Your task to perform on an android device: open app "McDonald's" Image 0: 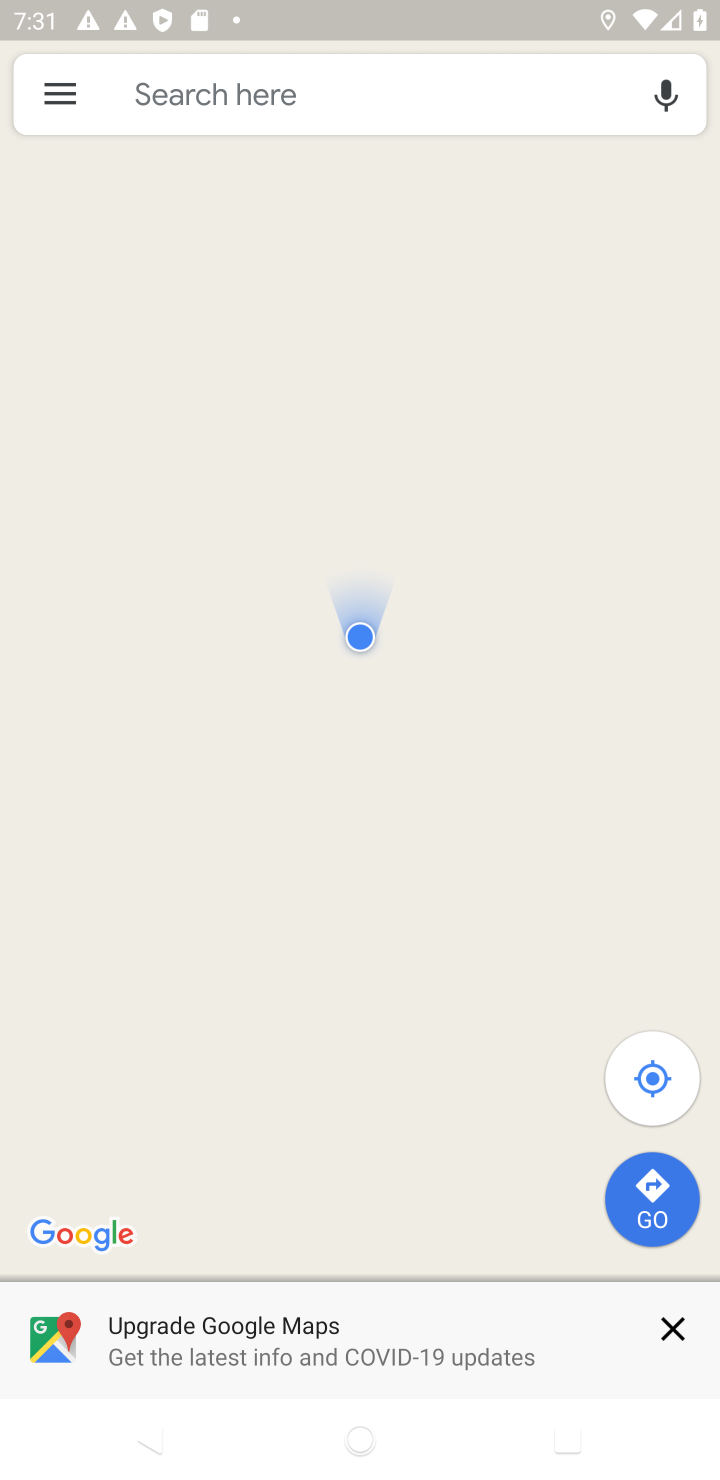
Step 0: press home button
Your task to perform on an android device: open app "McDonald's" Image 1: 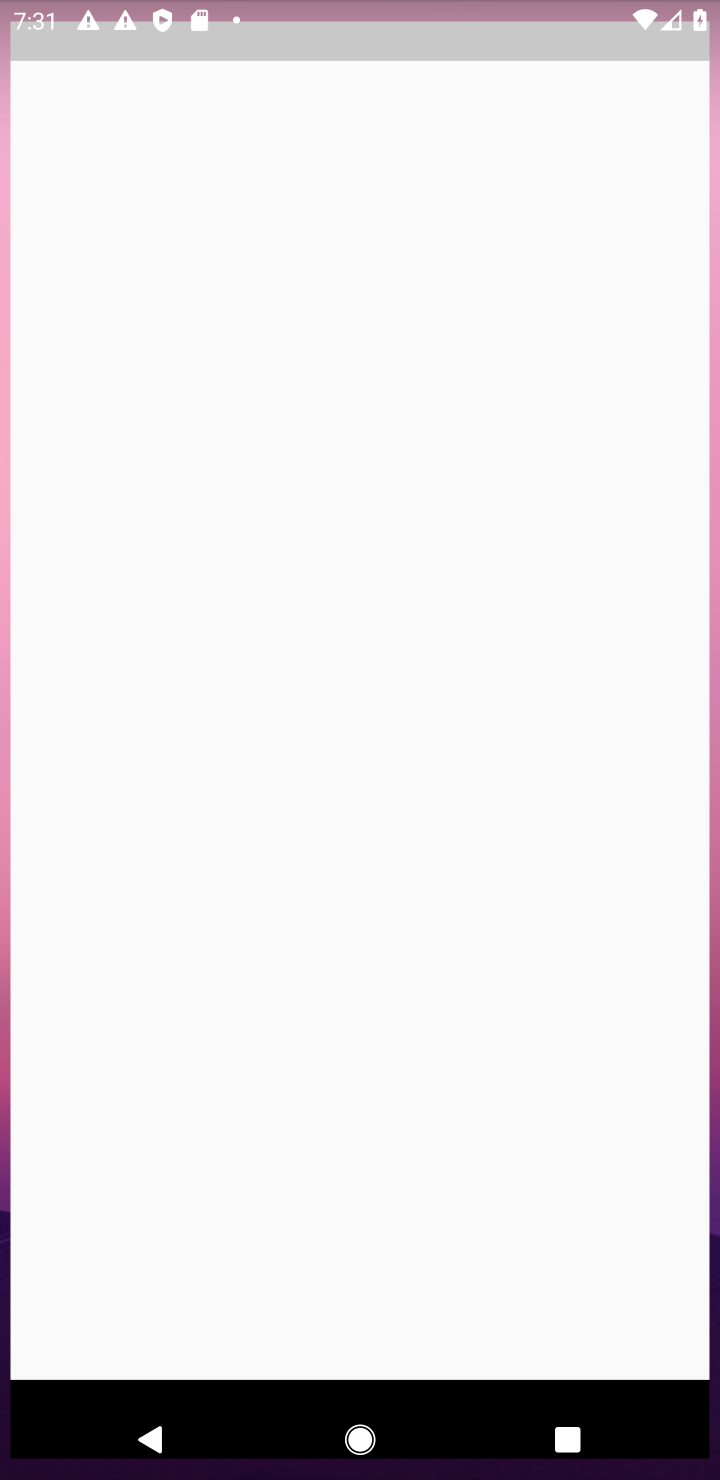
Step 1: press home button
Your task to perform on an android device: open app "McDonald's" Image 2: 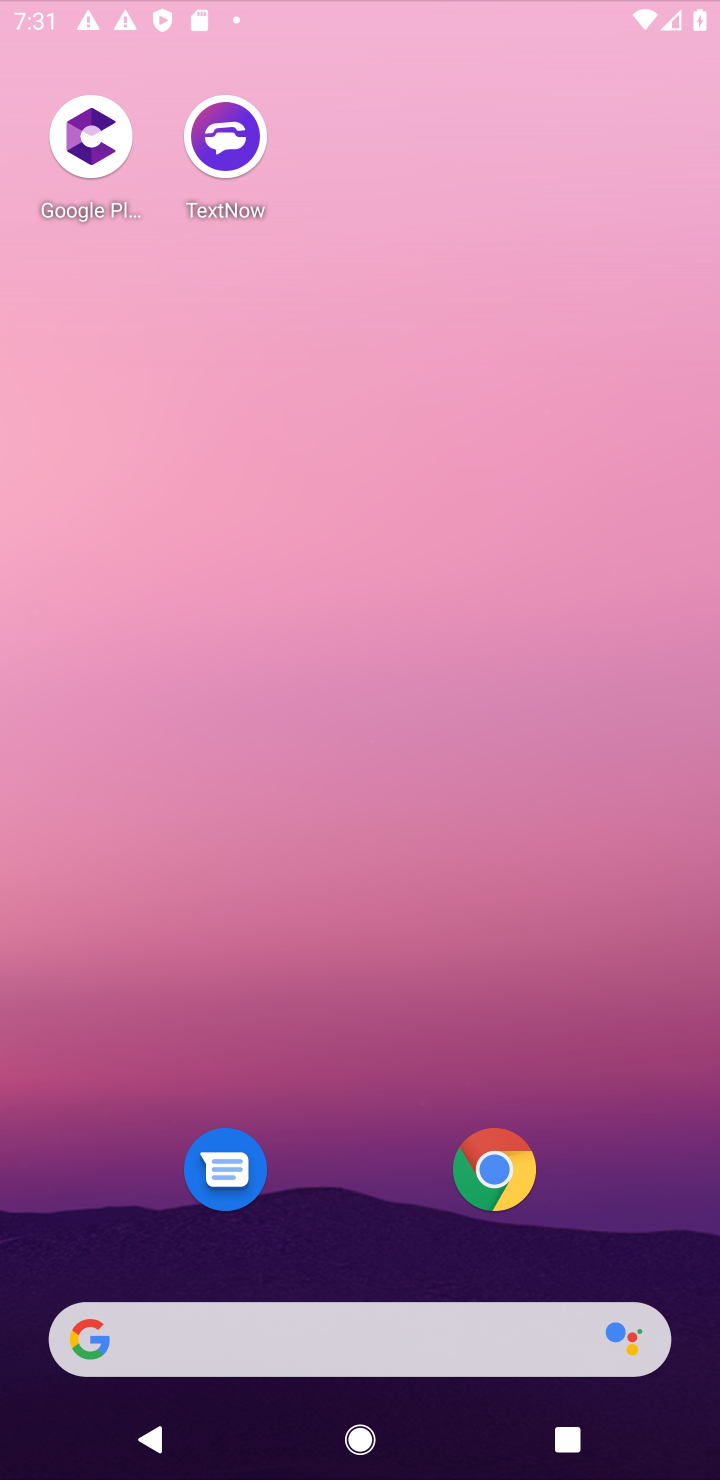
Step 2: press home button
Your task to perform on an android device: open app "McDonald's" Image 3: 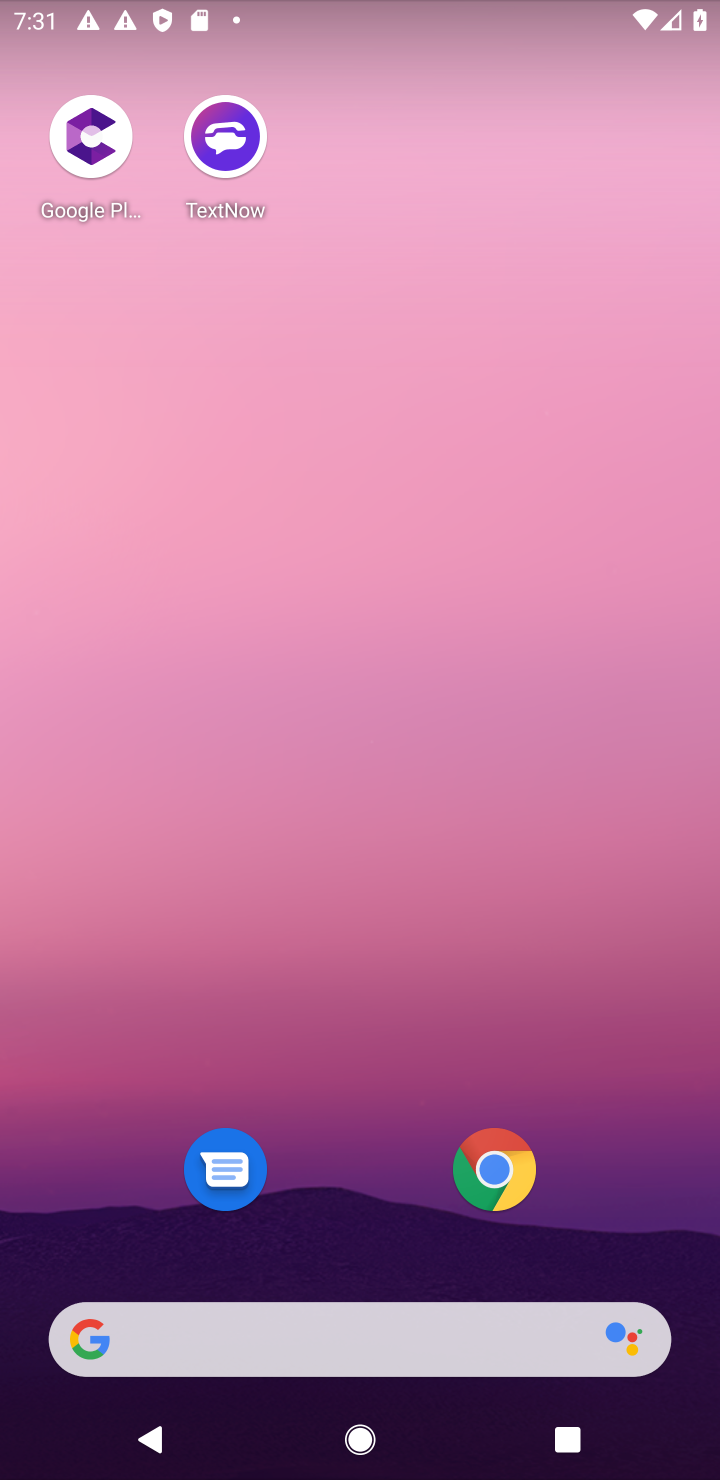
Step 3: press home button
Your task to perform on an android device: open app "McDonald's" Image 4: 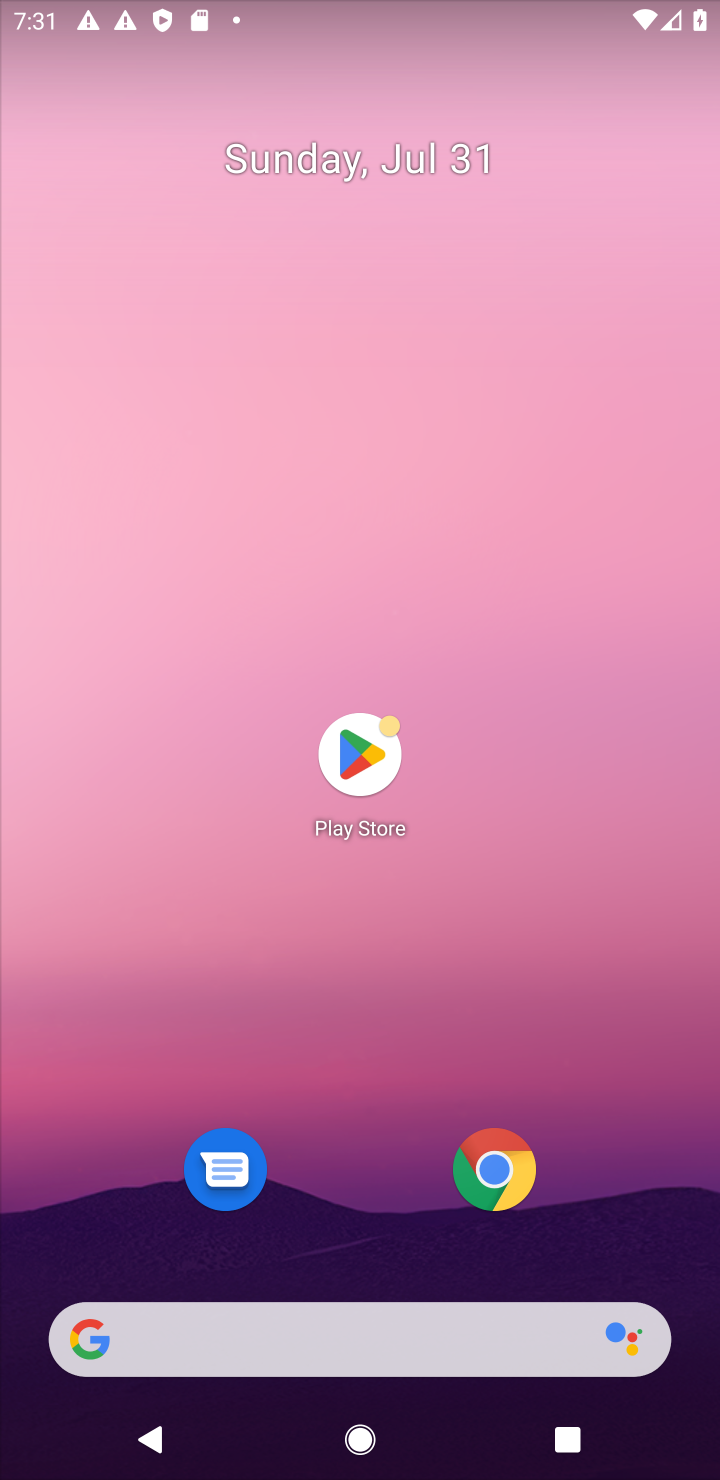
Step 4: press home button
Your task to perform on an android device: open app "McDonald's" Image 5: 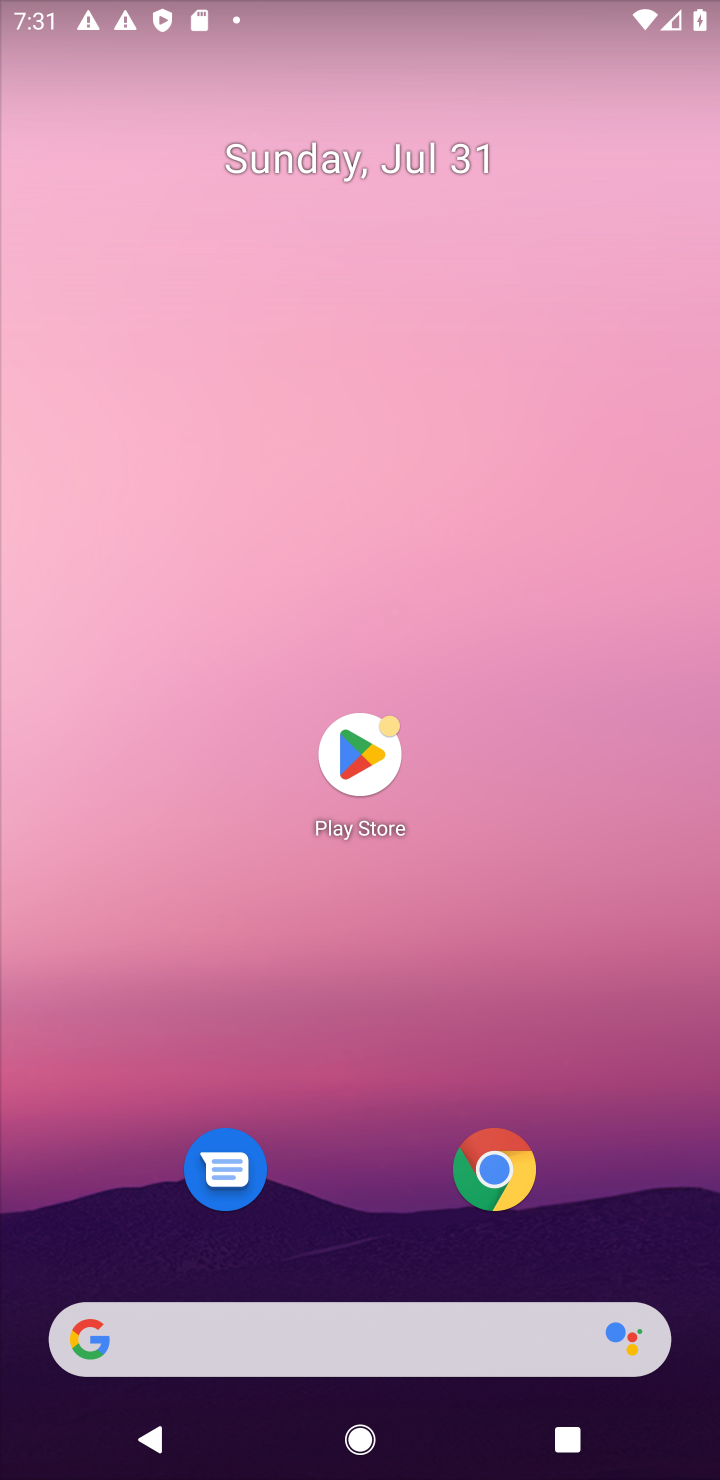
Step 5: press home button
Your task to perform on an android device: open app "McDonald's" Image 6: 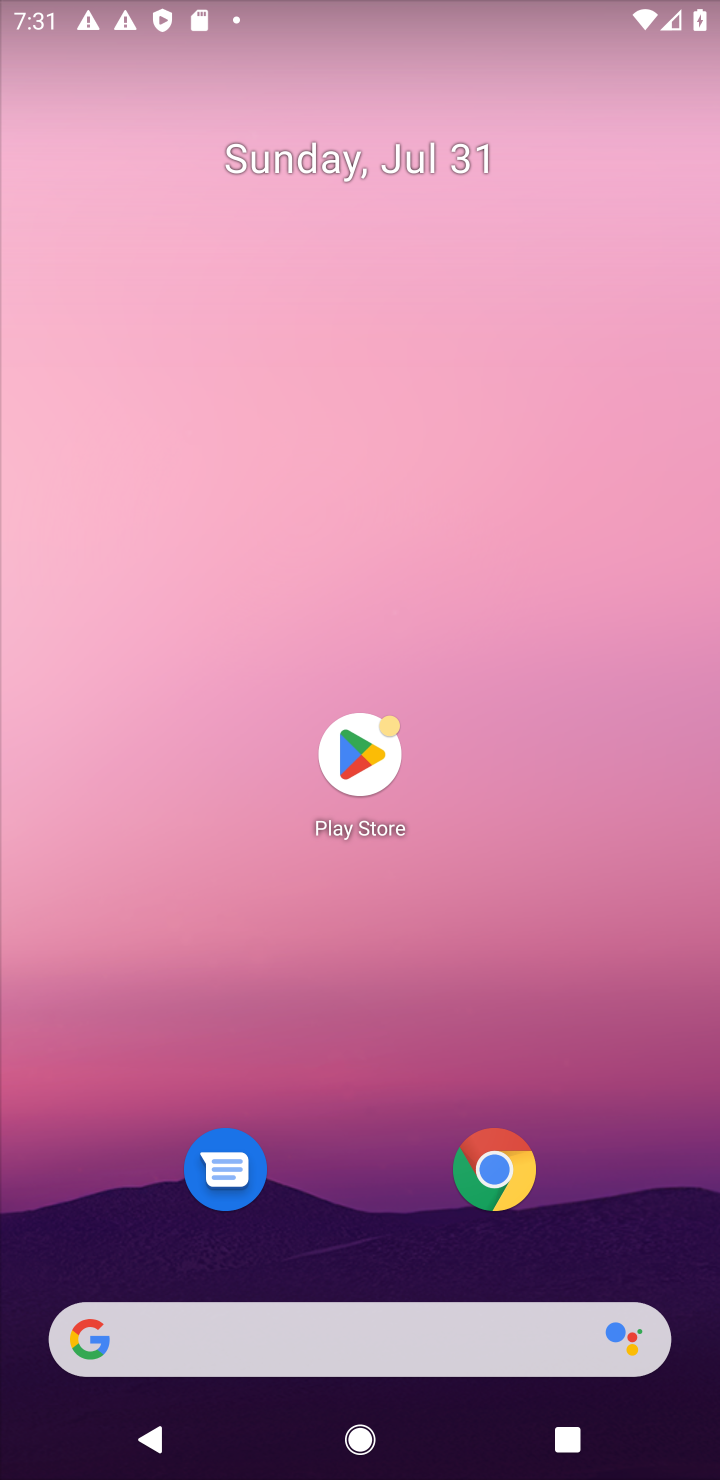
Step 6: click (378, 748)
Your task to perform on an android device: open app "McDonald's" Image 7: 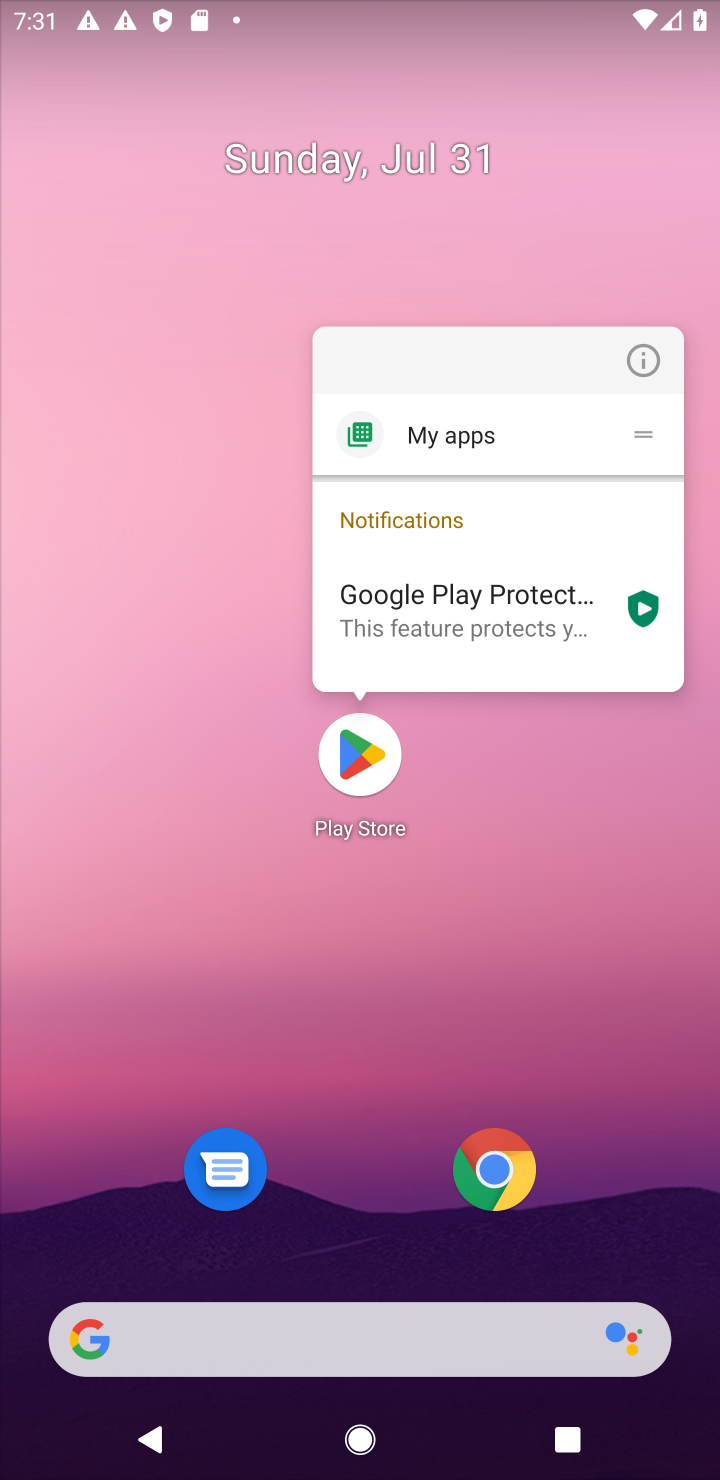
Step 7: click (356, 762)
Your task to perform on an android device: open app "McDonald's" Image 8: 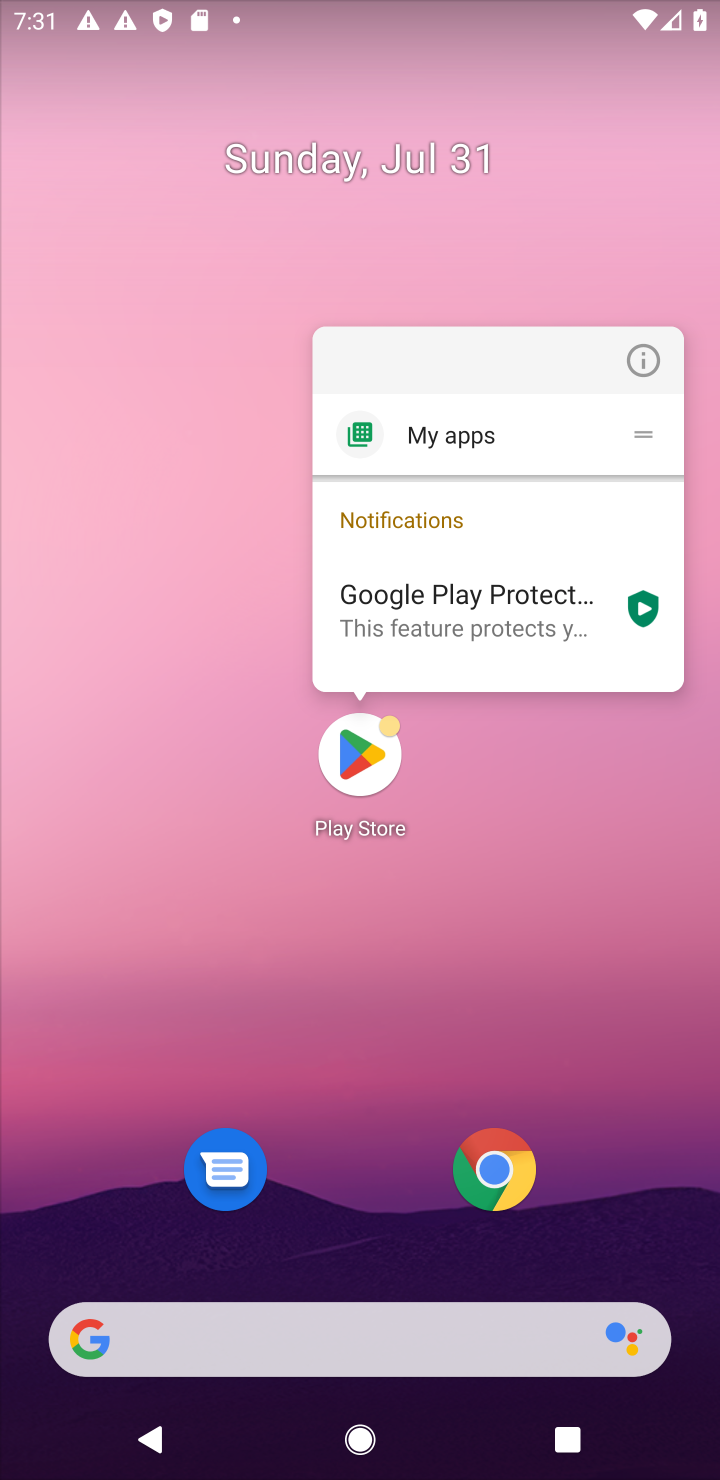
Step 8: click (339, 760)
Your task to perform on an android device: open app "McDonald's" Image 9: 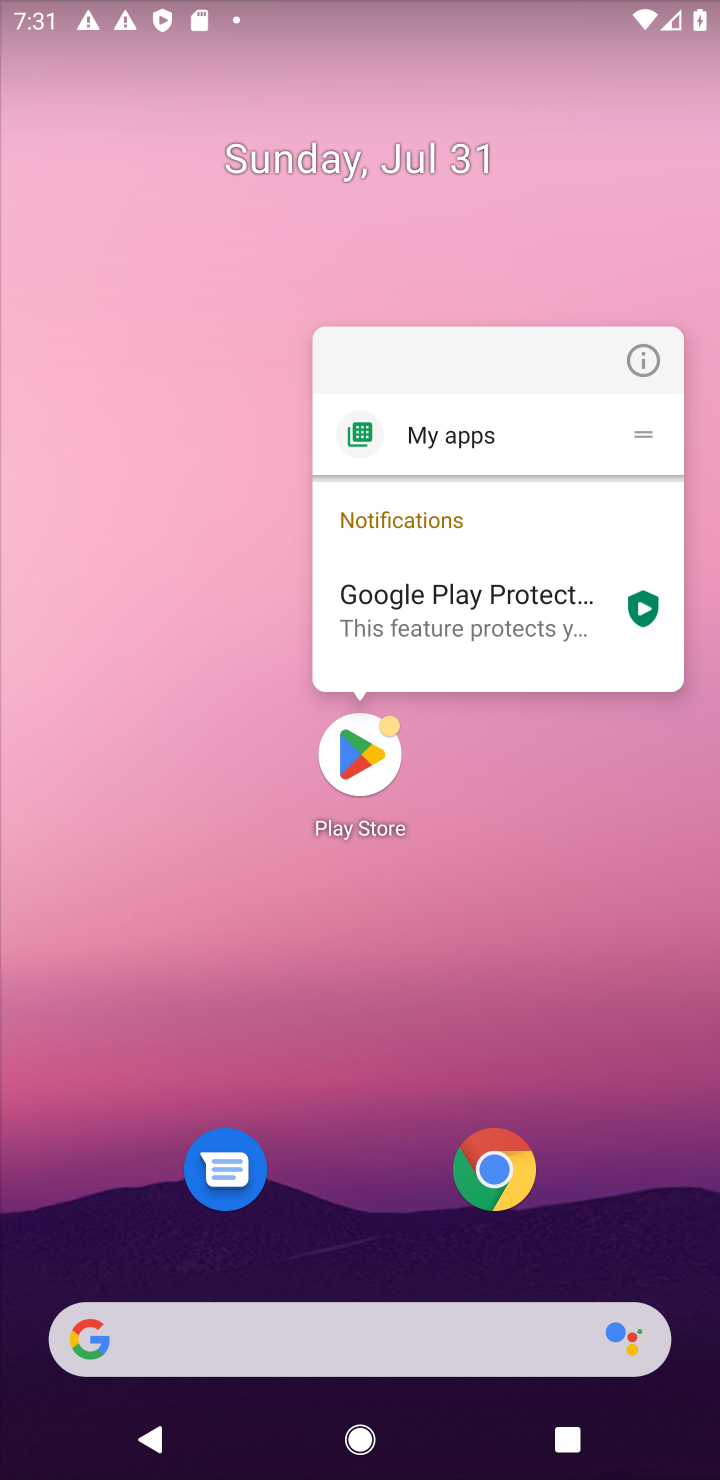
Step 9: click (353, 762)
Your task to perform on an android device: open app "McDonald's" Image 10: 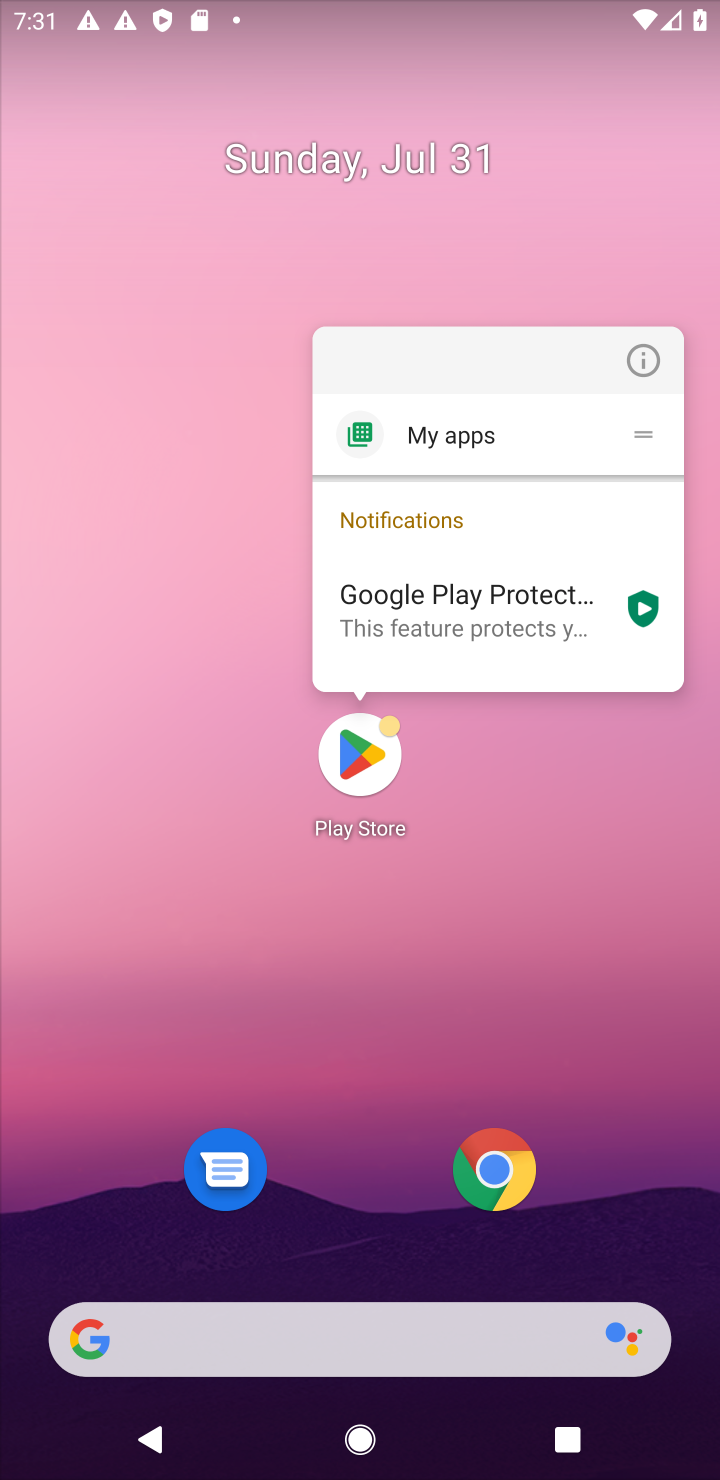
Step 10: click (355, 755)
Your task to perform on an android device: open app "McDonald's" Image 11: 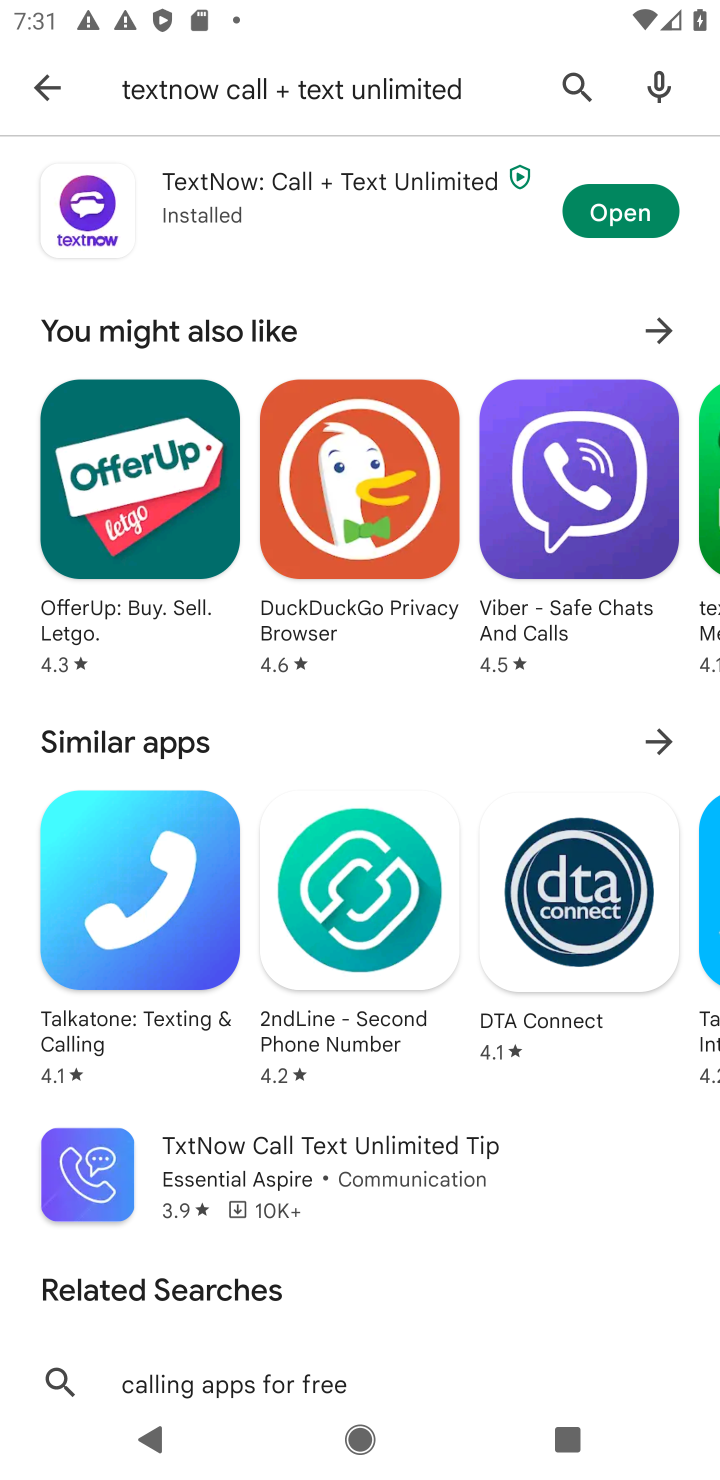
Step 11: click (434, 90)
Your task to perform on an android device: open app "McDonald's" Image 12: 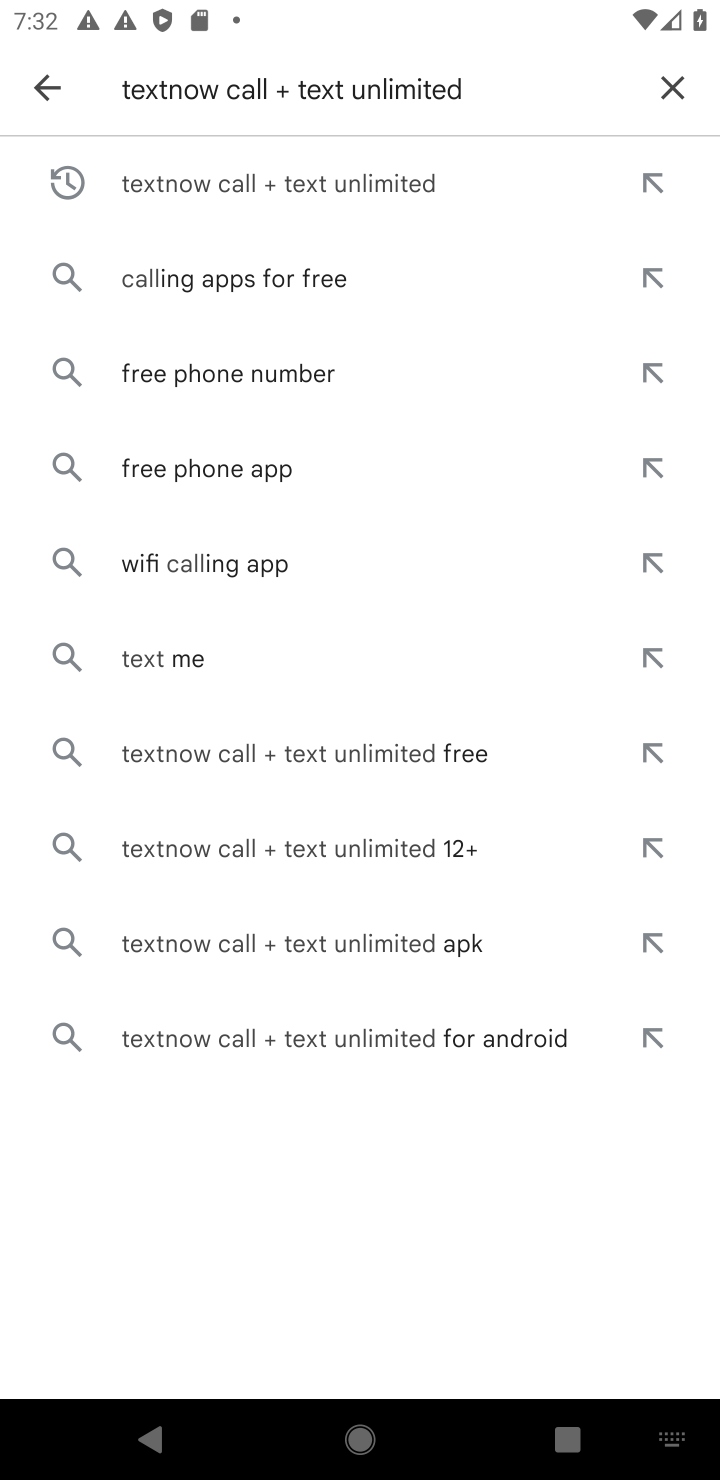
Step 12: click (663, 75)
Your task to perform on an android device: open app "McDonald's" Image 13: 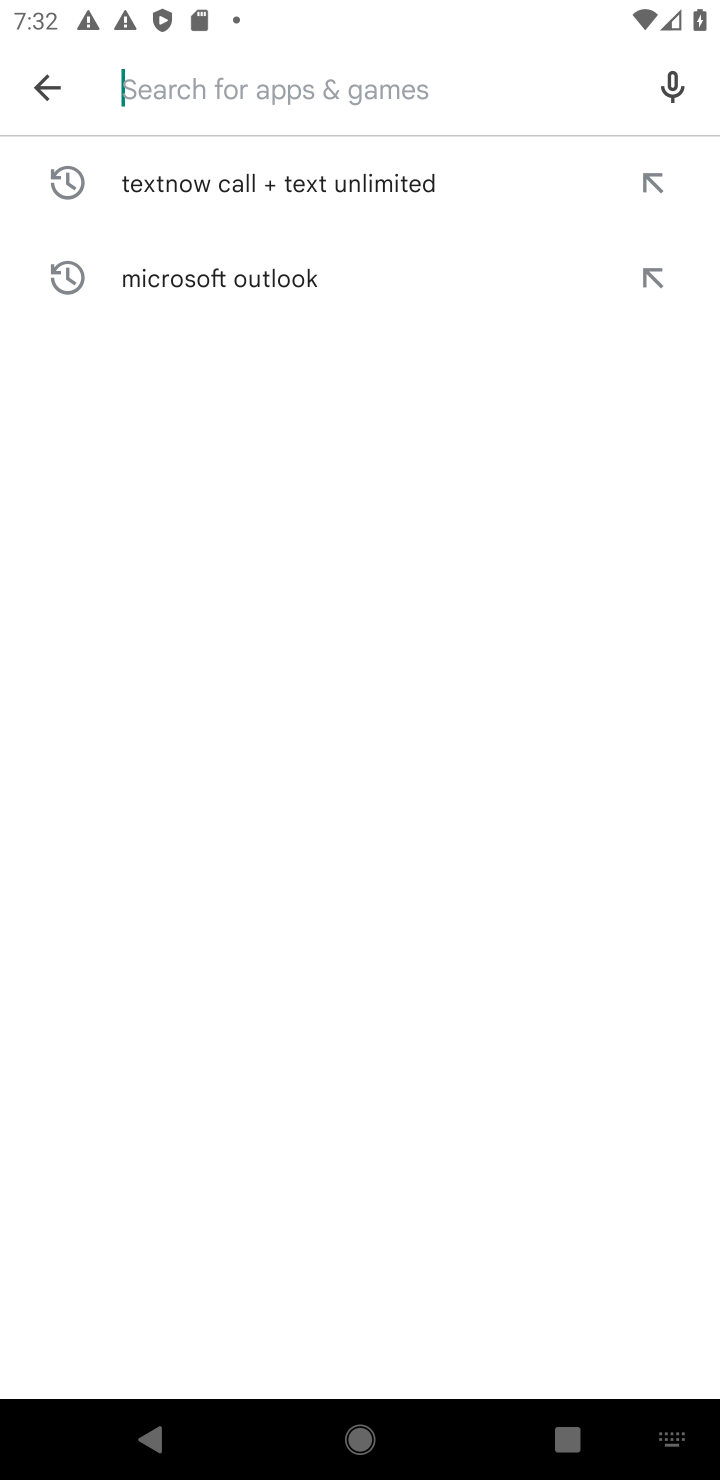
Step 13: type "McDonald's"
Your task to perform on an android device: open app "McDonald's" Image 14: 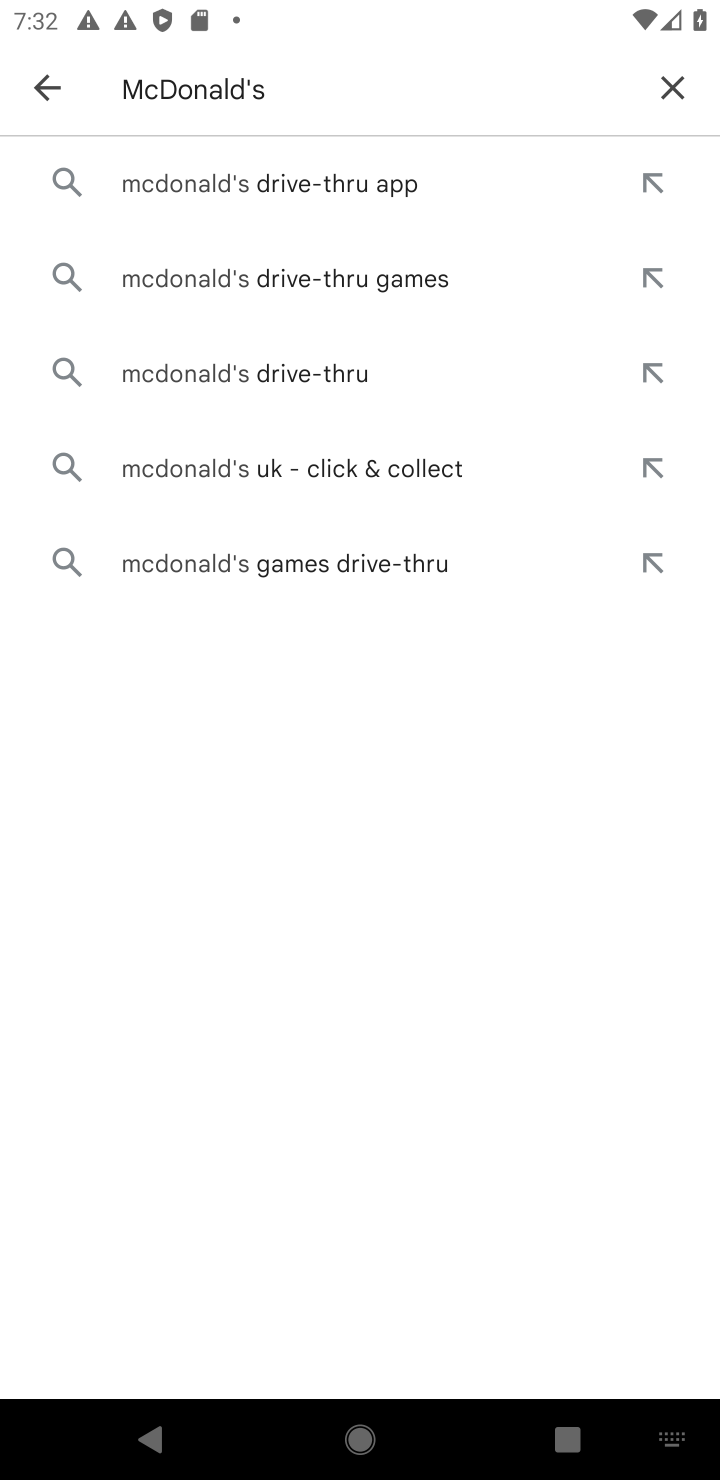
Step 14: click (202, 189)
Your task to perform on an android device: open app "McDonald's" Image 15: 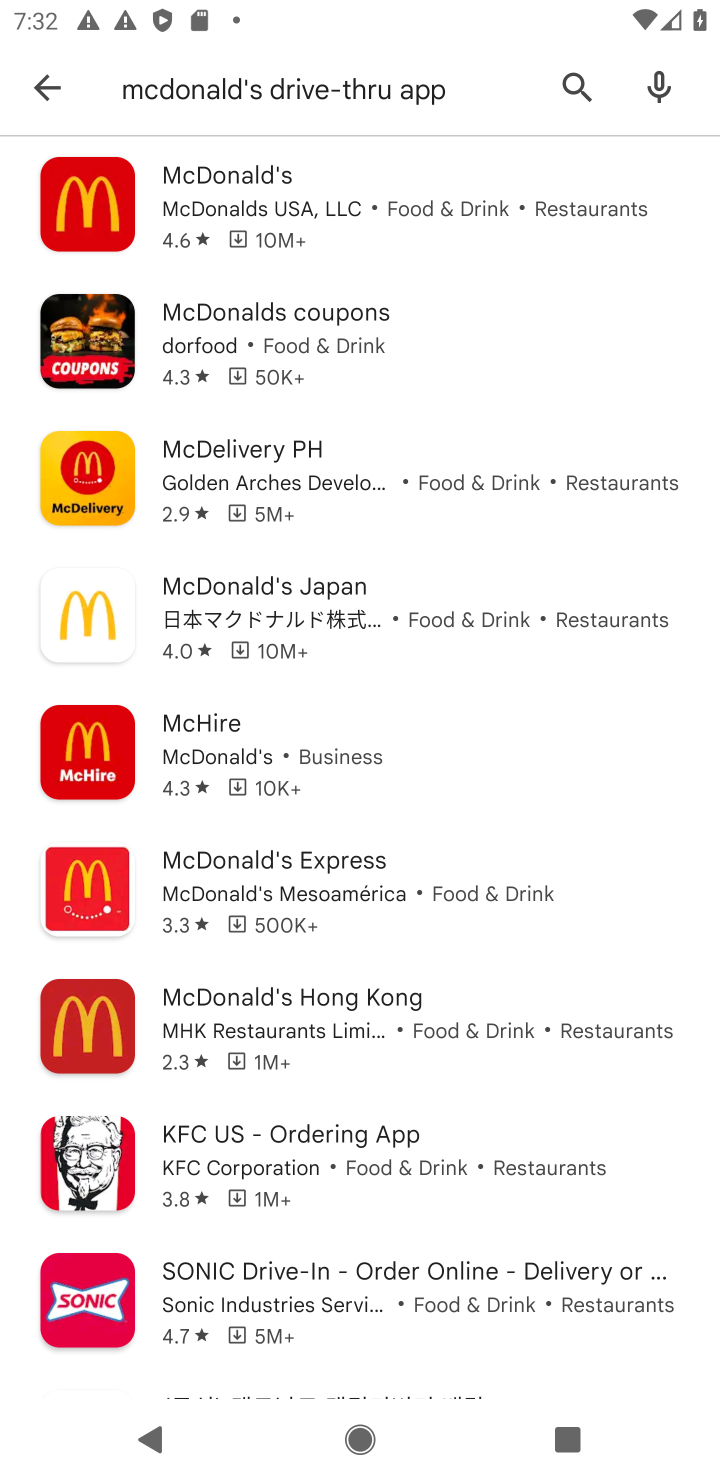
Step 15: click (257, 211)
Your task to perform on an android device: open app "McDonald's" Image 16: 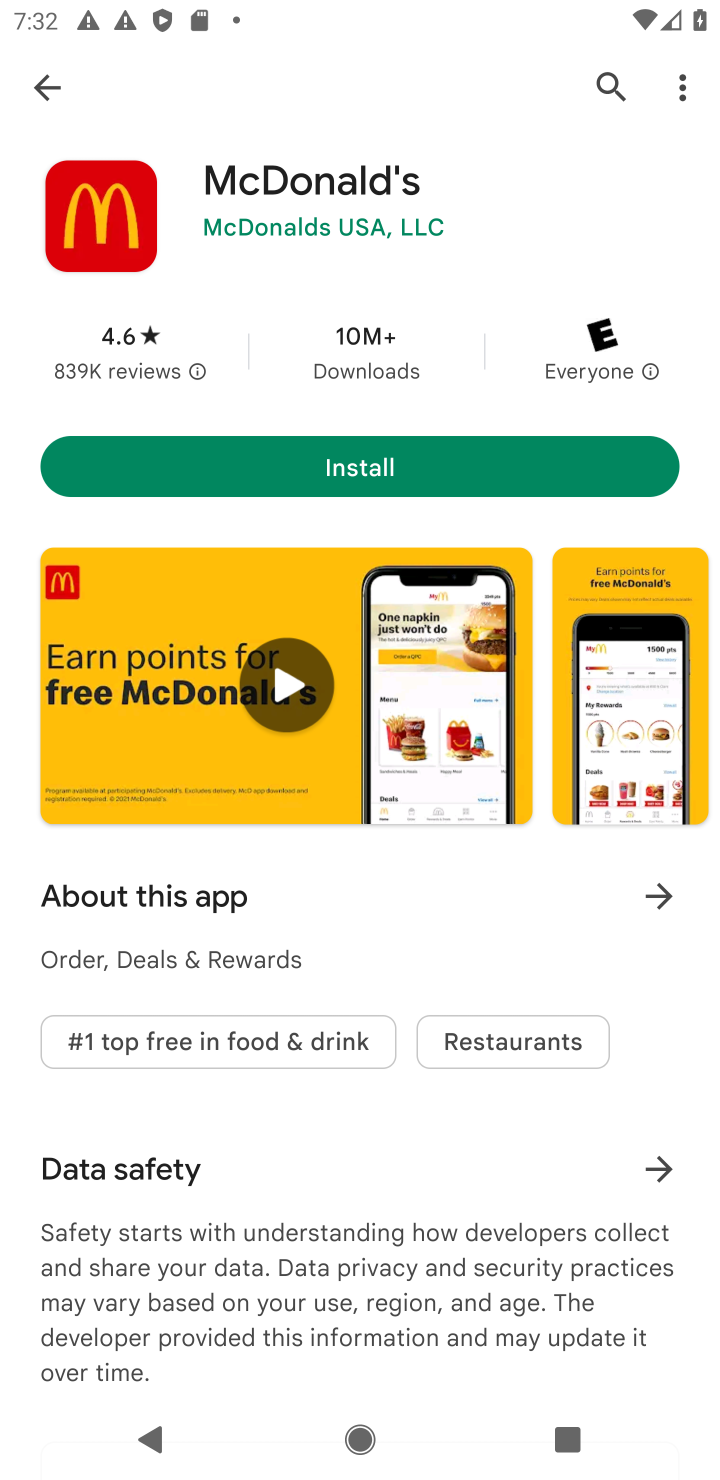
Step 16: task complete